Your task to perform on an android device: Open wifi settings Image 0: 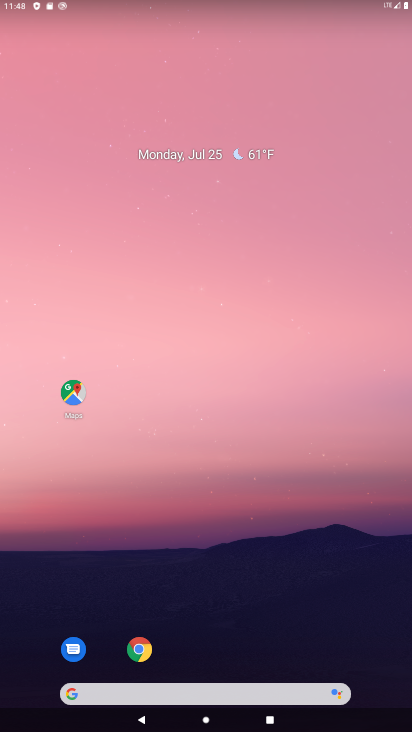
Step 0: drag from (206, 679) to (214, 26)
Your task to perform on an android device: Open wifi settings Image 1: 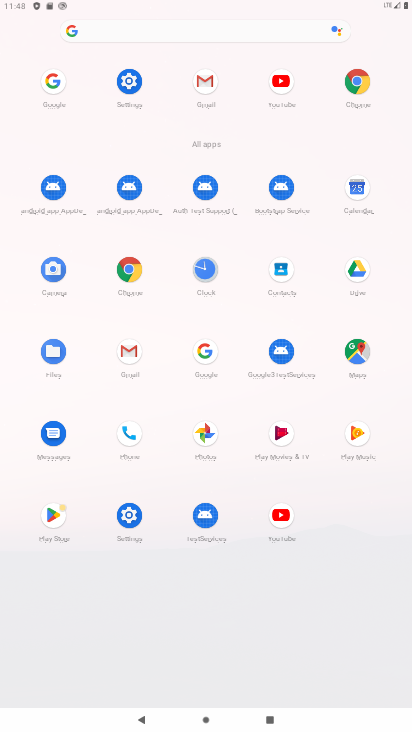
Step 1: click (129, 77)
Your task to perform on an android device: Open wifi settings Image 2: 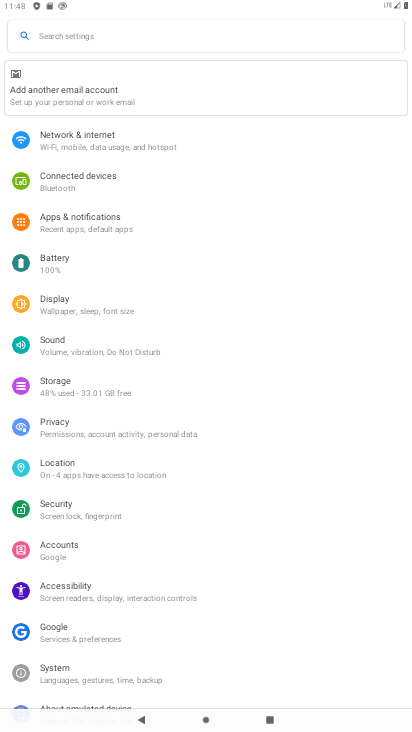
Step 2: click (128, 135)
Your task to perform on an android device: Open wifi settings Image 3: 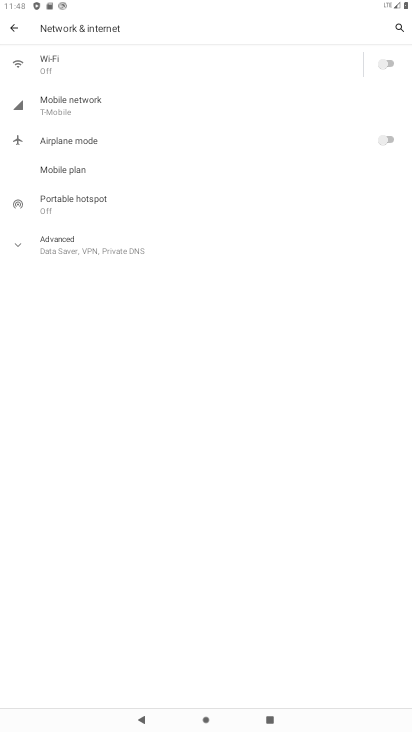
Step 3: click (75, 71)
Your task to perform on an android device: Open wifi settings Image 4: 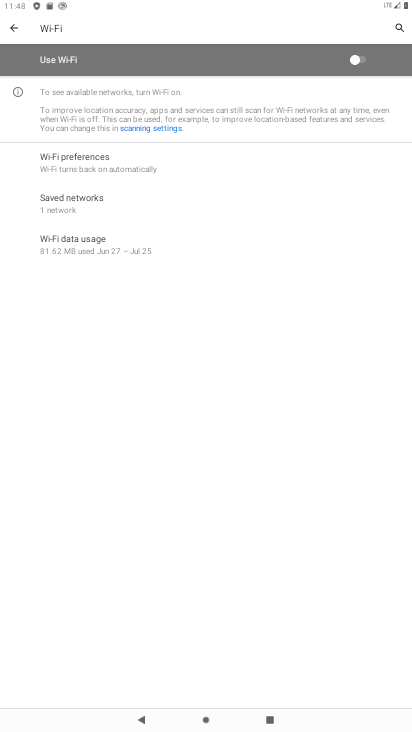
Step 4: task complete